Your task to perform on an android device: Open Youtube and go to "Your channel" Image 0: 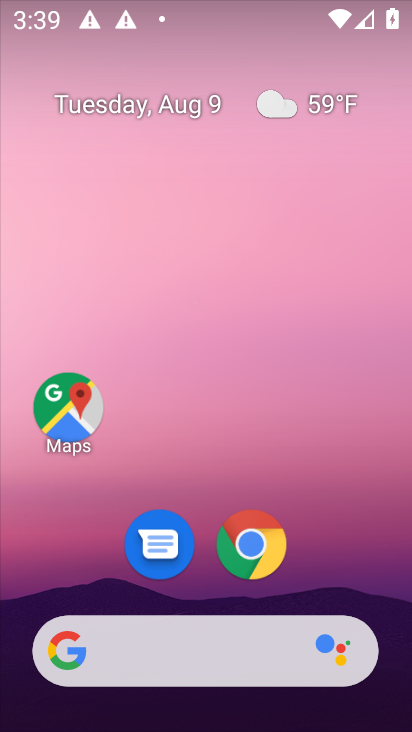
Step 0: drag from (149, 526) to (211, 193)
Your task to perform on an android device: Open Youtube and go to "Your channel" Image 1: 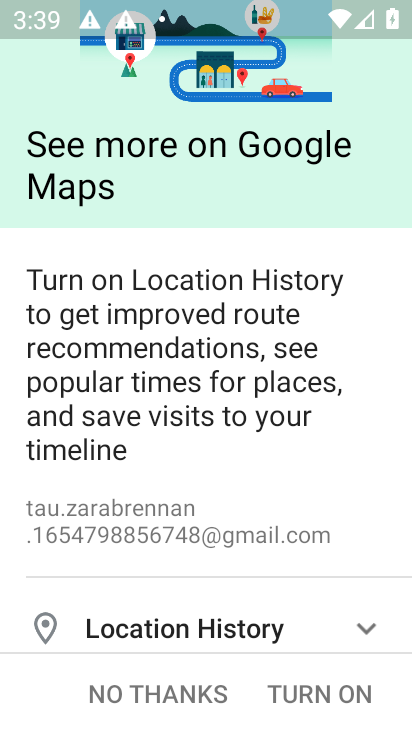
Step 1: press home button
Your task to perform on an android device: Open Youtube and go to "Your channel" Image 2: 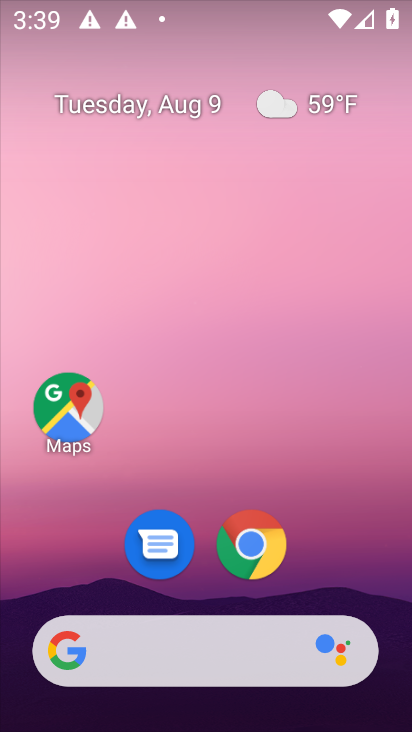
Step 2: drag from (215, 514) to (219, 192)
Your task to perform on an android device: Open Youtube and go to "Your channel" Image 3: 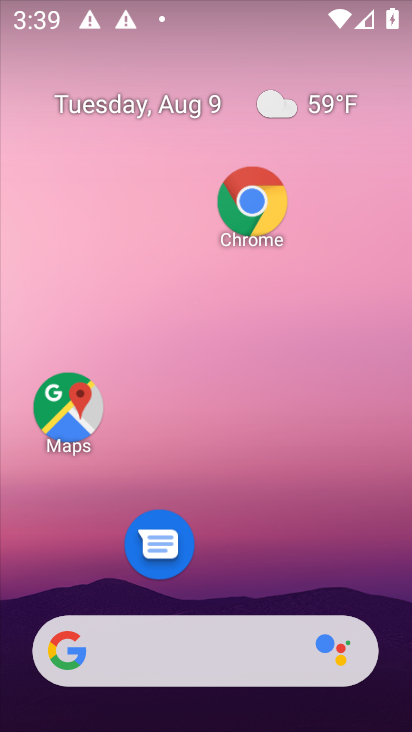
Step 3: drag from (233, 618) to (224, 160)
Your task to perform on an android device: Open Youtube and go to "Your channel" Image 4: 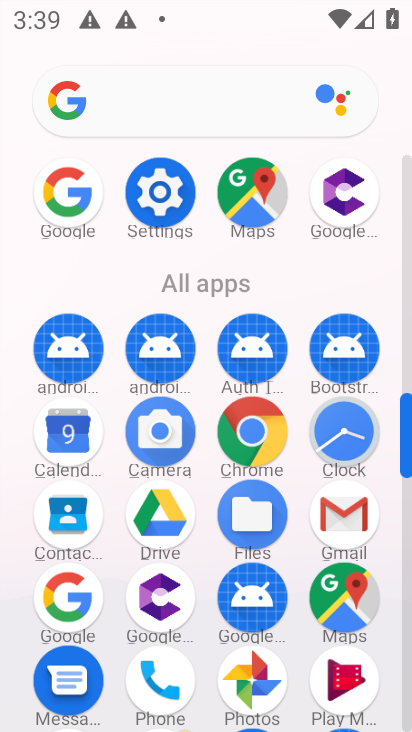
Step 4: drag from (217, 697) to (196, 351)
Your task to perform on an android device: Open Youtube and go to "Your channel" Image 5: 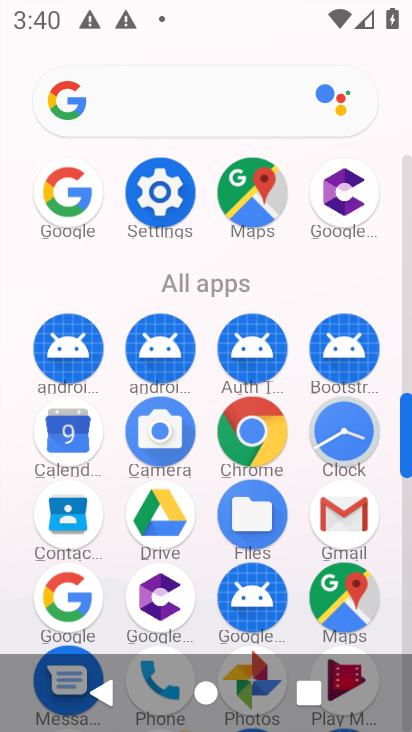
Step 5: drag from (198, 484) to (198, 285)
Your task to perform on an android device: Open Youtube and go to "Your channel" Image 6: 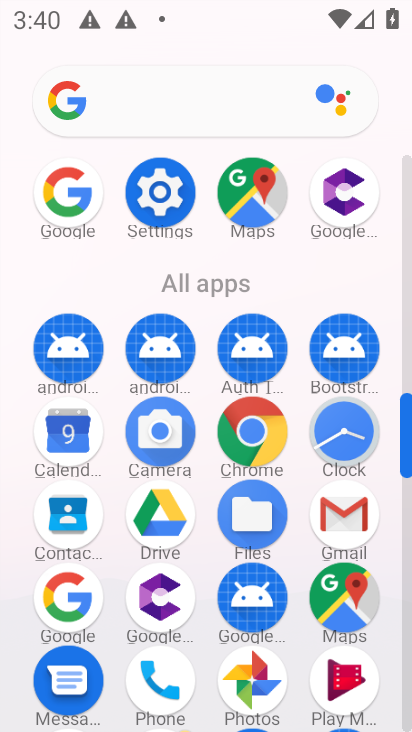
Step 6: drag from (195, 712) to (201, 354)
Your task to perform on an android device: Open Youtube and go to "Your channel" Image 7: 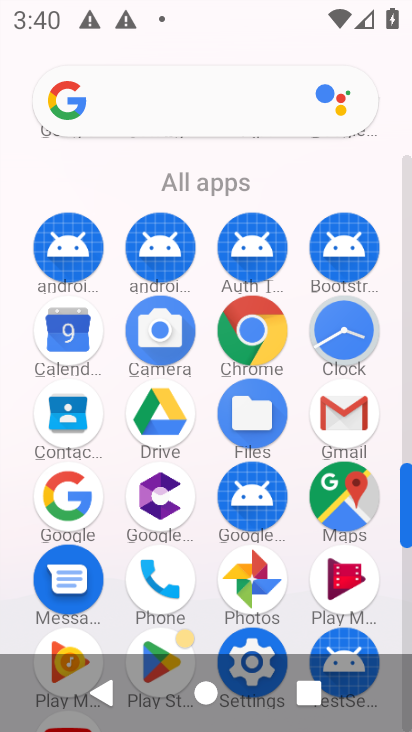
Step 7: drag from (212, 570) to (212, 300)
Your task to perform on an android device: Open Youtube and go to "Your channel" Image 8: 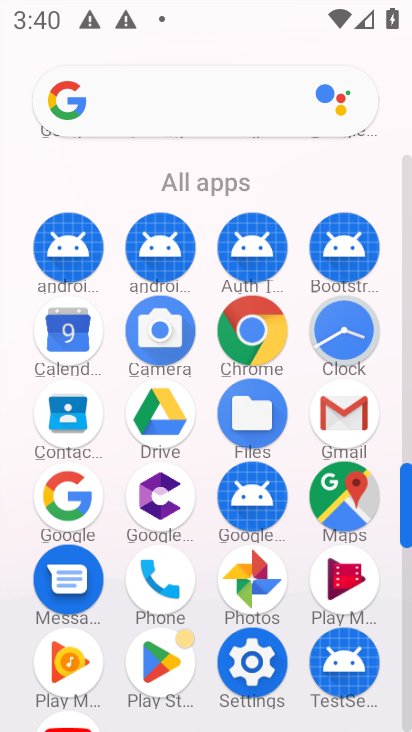
Step 8: drag from (215, 727) to (197, 414)
Your task to perform on an android device: Open Youtube and go to "Your channel" Image 9: 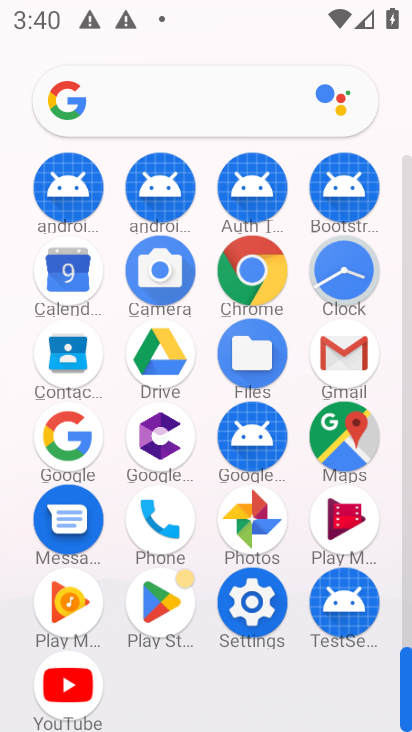
Step 9: click (64, 678)
Your task to perform on an android device: Open Youtube and go to "Your channel" Image 10: 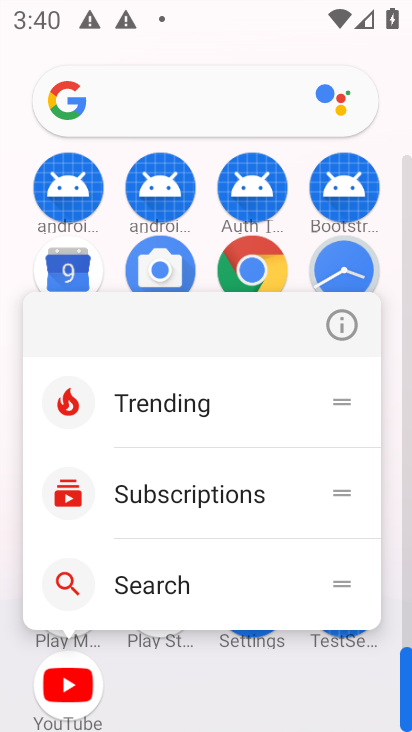
Step 10: click (72, 696)
Your task to perform on an android device: Open Youtube and go to "Your channel" Image 11: 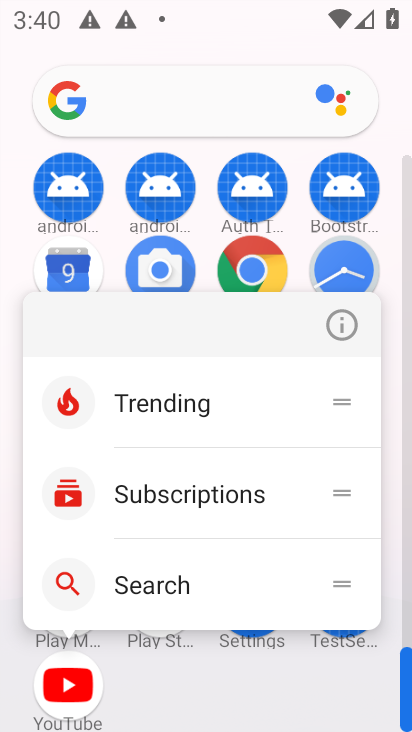
Step 11: click (66, 687)
Your task to perform on an android device: Open Youtube and go to "Your channel" Image 12: 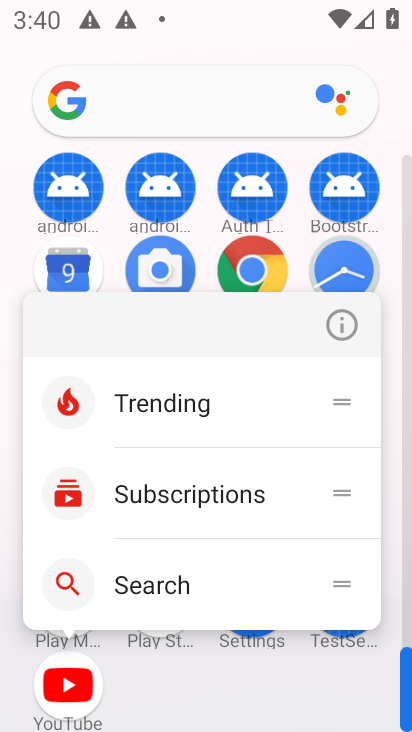
Step 12: click (77, 683)
Your task to perform on an android device: Open Youtube and go to "Your channel" Image 13: 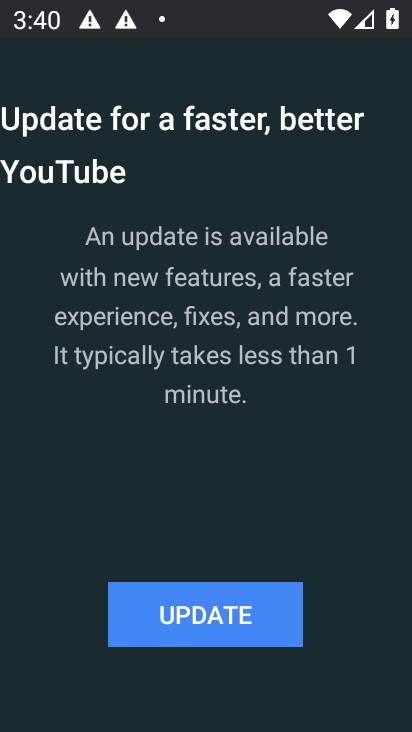
Step 13: click (181, 618)
Your task to perform on an android device: Open Youtube and go to "Your channel" Image 14: 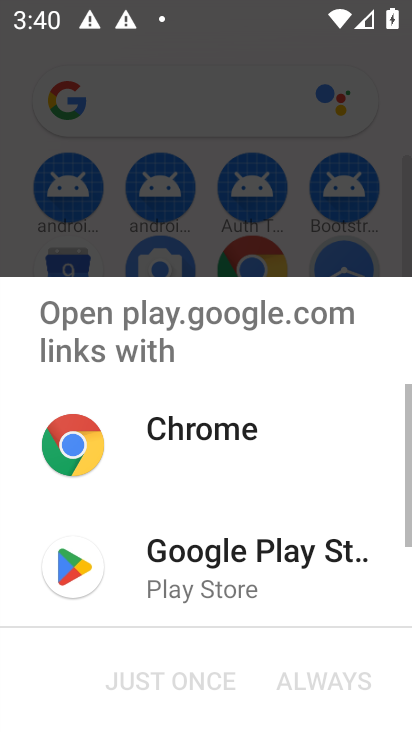
Step 14: click (226, 564)
Your task to perform on an android device: Open Youtube and go to "Your channel" Image 15: 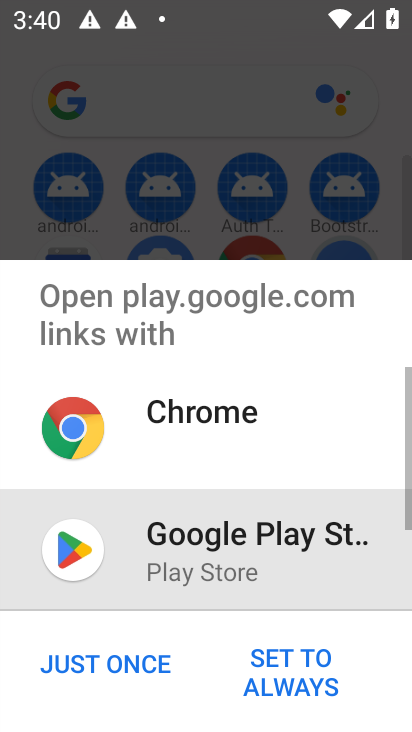
Step 15: click (147, 656)
Your task to perform on an android device: Open Youtube and go to "Your channel" Image 16: 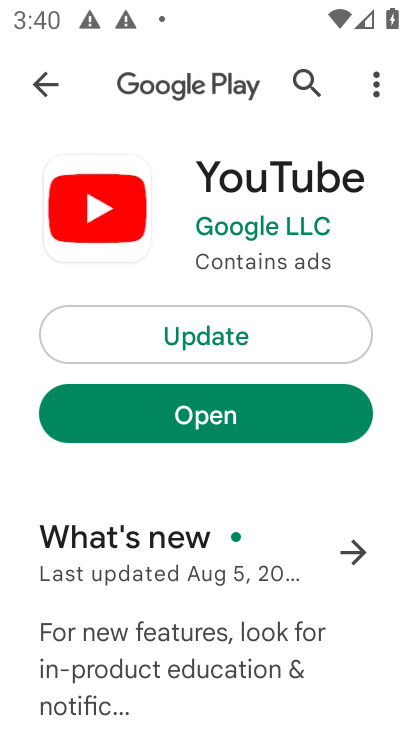
Step 16: click (186, 335)
Your task to perform on an android device: Open Youtube and go to "Your channel" Image 17: 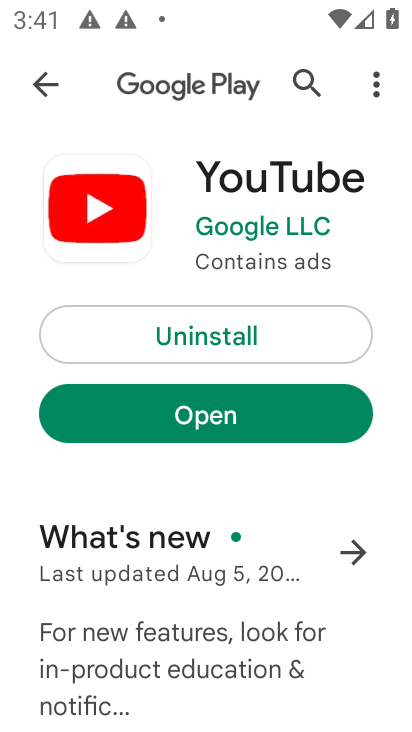
Step 17: click (188, 418)
Your task to perform on an android device: Open Youtube and go to "Your channel" Image 18: 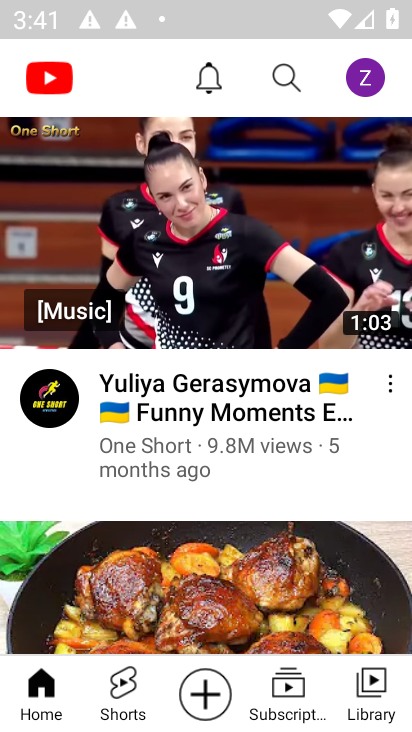
Step 18: click (373, 82)
Your task to perform on an android device: Open Youtube and go to "Your channel" Image 19: 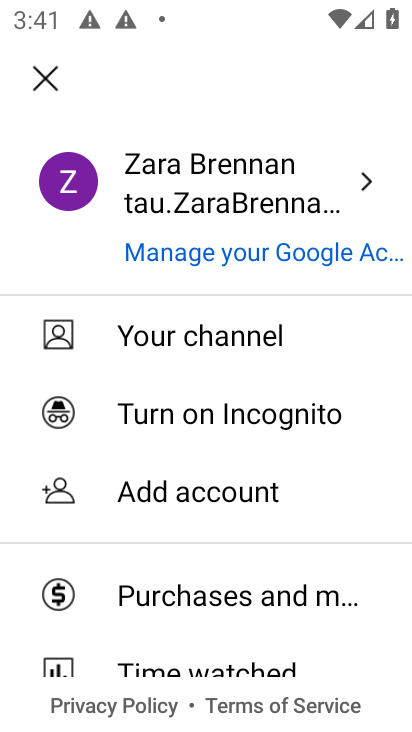
Step 19: click (213, 351)
Your task to perform on an android device: Open Youtube and go to "Your channel" Image 20: 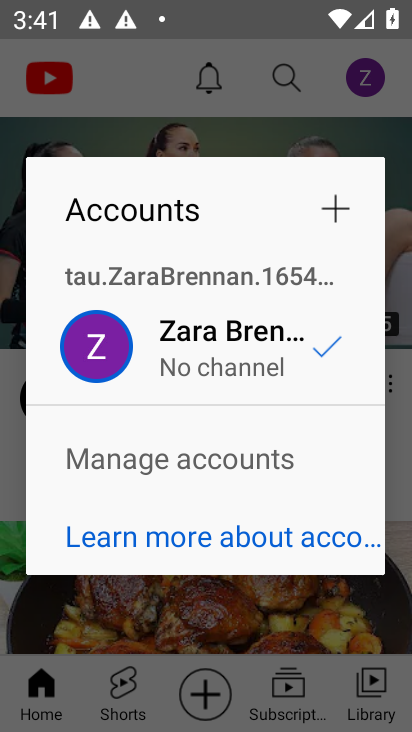
Step 20: task complete